Your task to perform on an android device: What does the iPhone 8 look like? Image 0: 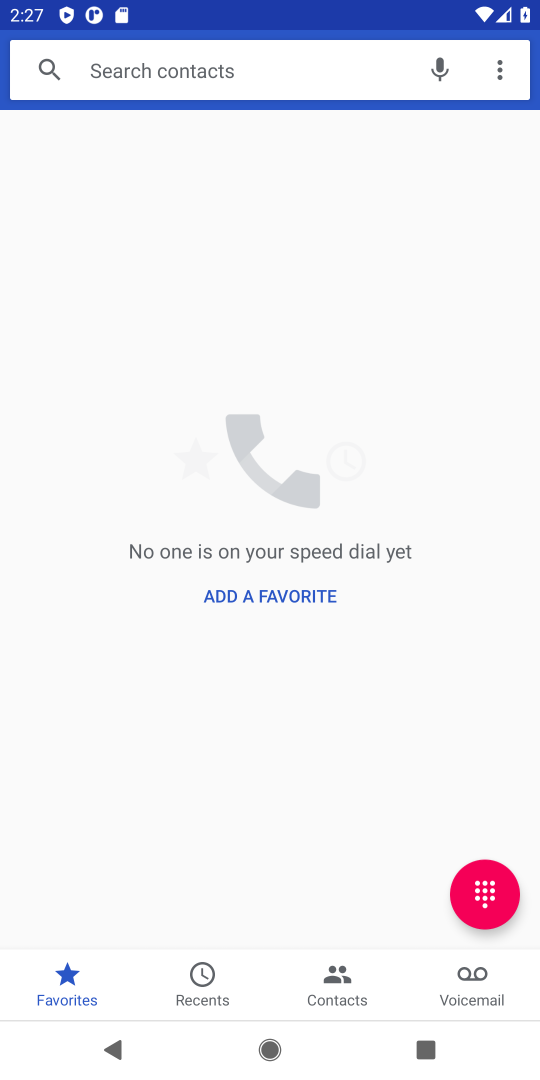
Step 0: press home button
Your task to perform on an android device: What does the iPhone 8 look like? Image 1: 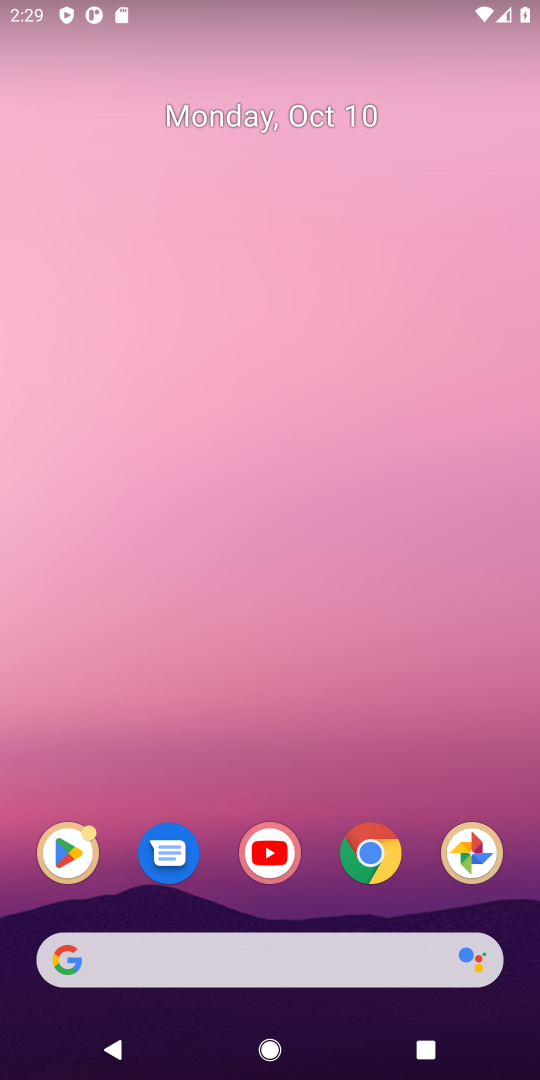
Step 1: click (366, 861)
Your task to perform on an android device: What does the iPhone 8 look like? Image 2: 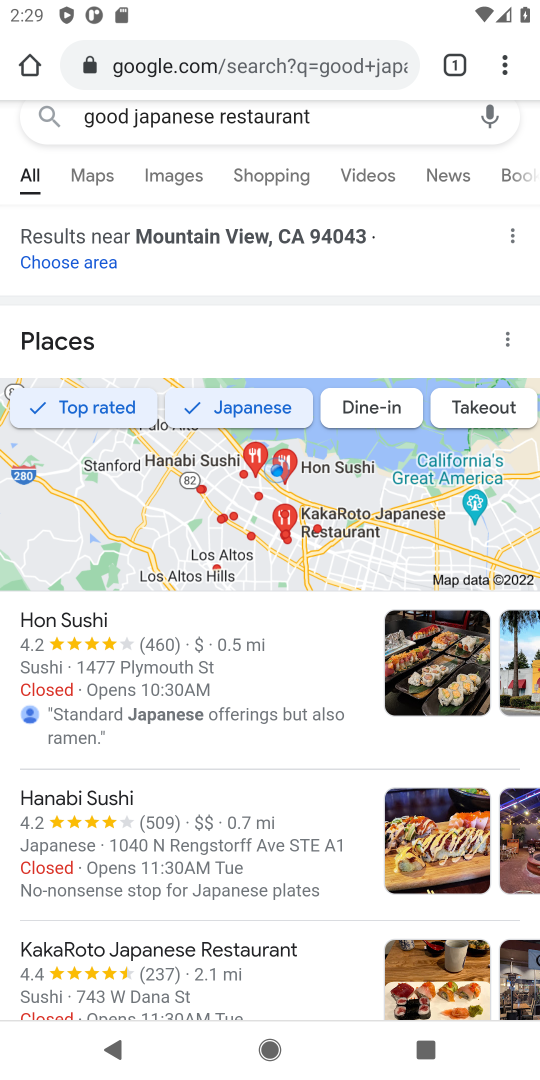
Step 2: click (261, 65)
Your task to perform on an android device: What does the iPhone 8 look like? Image 3: 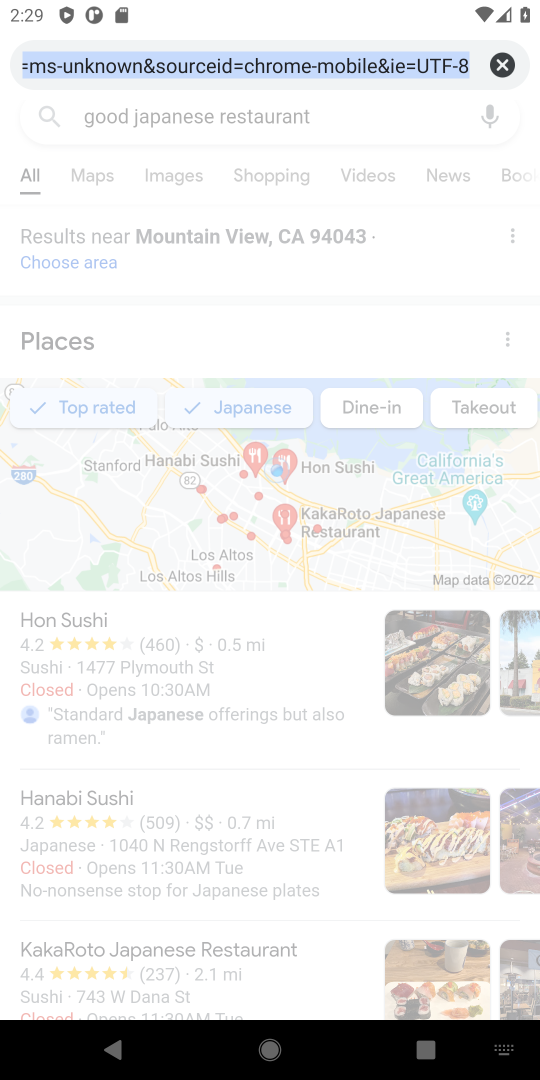
Step 3: click (358, 83)
Your task to perform on an android device: What does the iPhone 8 look like? Image 4: 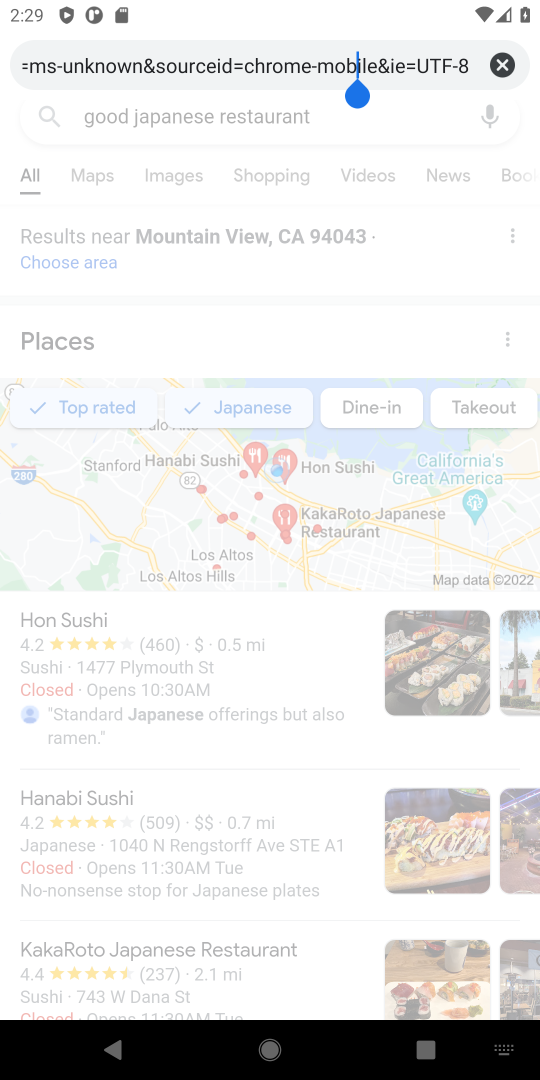
Step 4: click (501, 65)
Your task to perform on an android device: What does the iPhone 8 look like? Image 5: 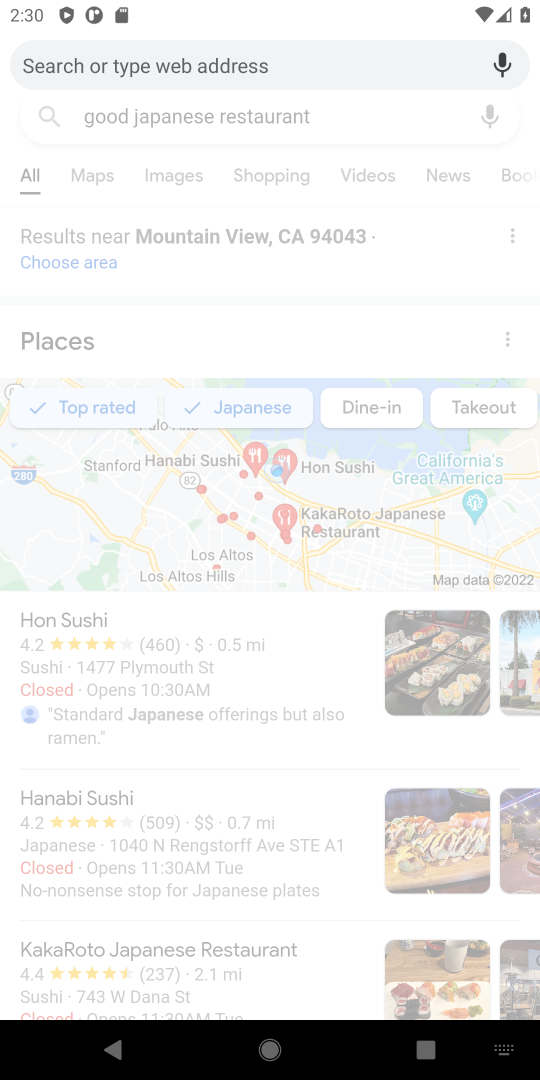
Step 5: type "iphone 8"
Your task to perform on an android device: What does the iPhone 8 look like? Image 6: 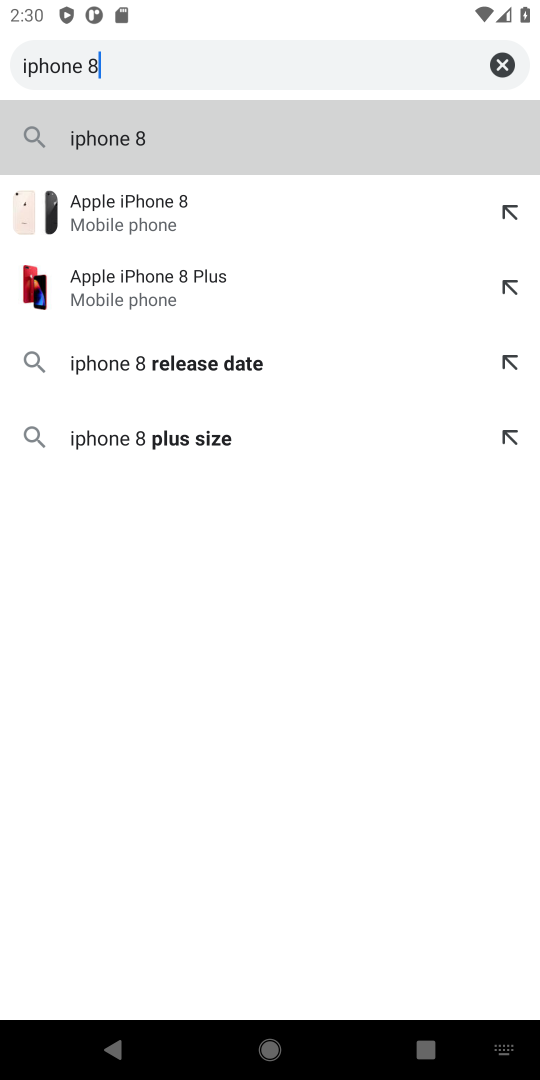
Step 6: click (184, 149)
Your task to perform on an android device: What does the iPhone 8 look like? Image 7: 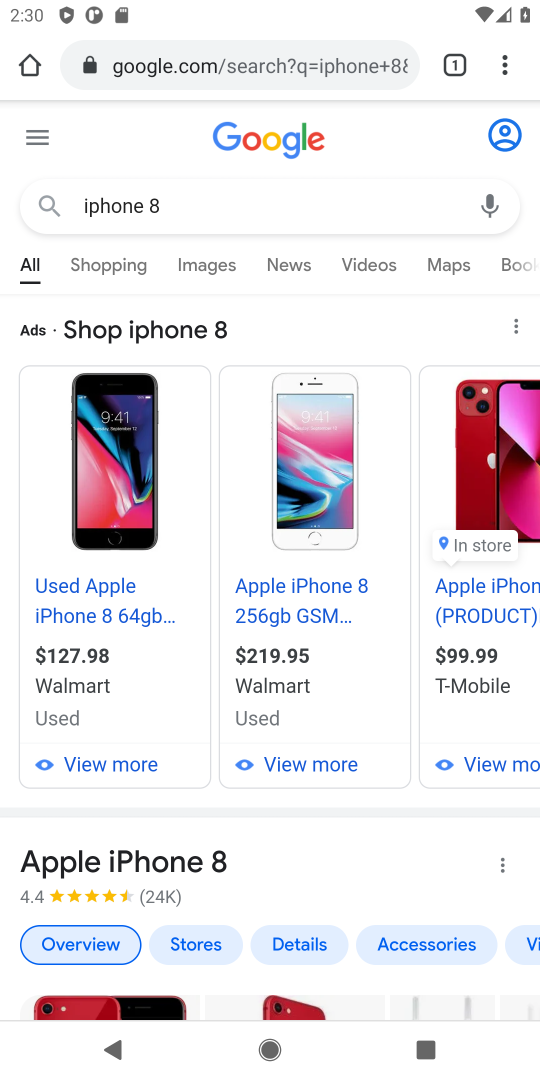
Step 7: click (227, 255)
Your task to perform on an android device: What does the iPhone 8 look like? Image 8: 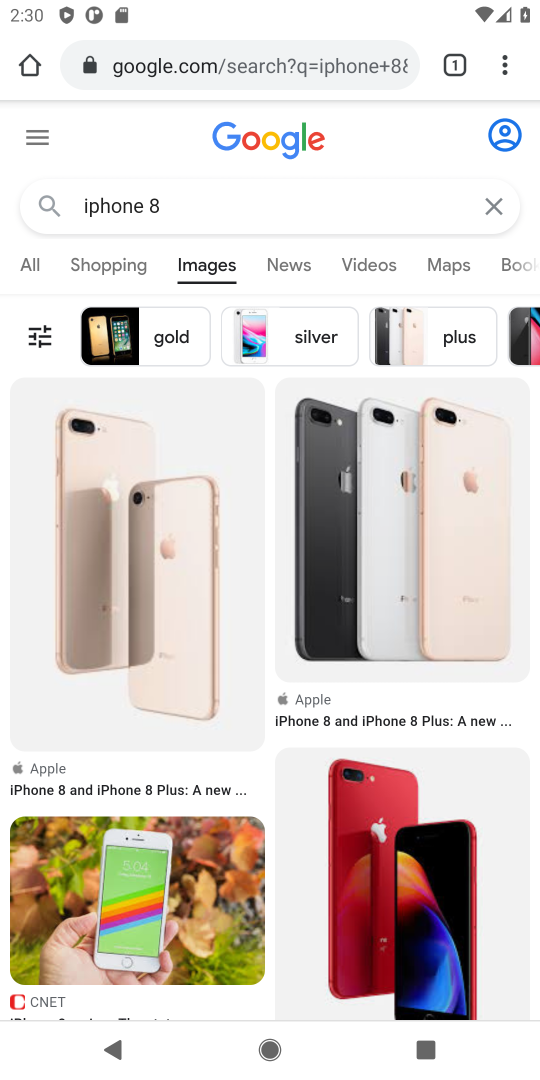
Step 8: task complete